Your task to perform on an android device: install app "Microsoft Excel" Image 0: 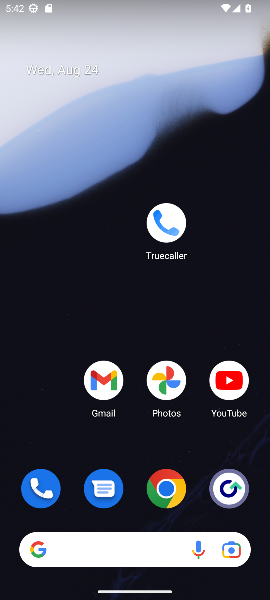
Step 0: drag from (130, 513) to (116, 121)
Your task to perform on an android device: install app "Microsoft Excel" Image 1: 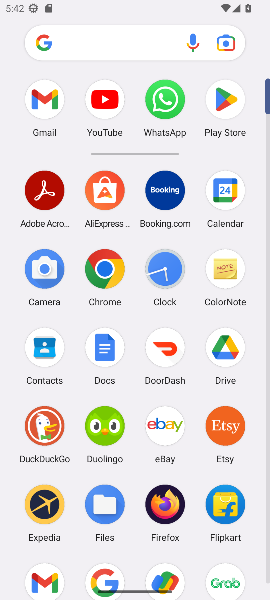
Step 1: click (234, 110)
Your task to perform on an android device: install app "Microsoft Excel" Image 2: 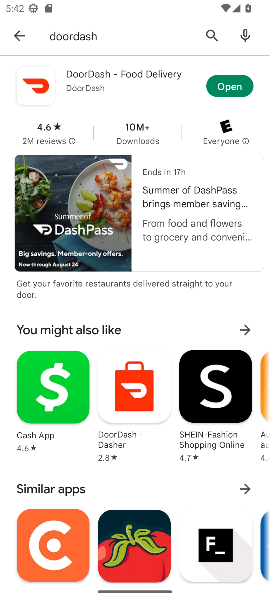
Step 2: click (205, 36)
Your task to perform on an android device: install app "Microsoft Excel" Image 3: 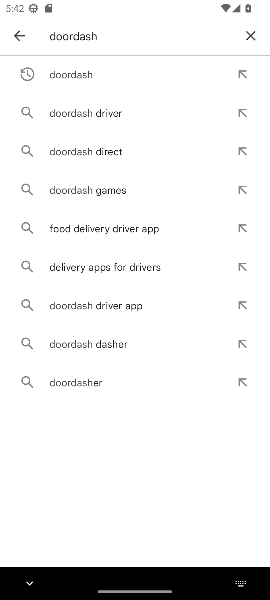
Step 3: click (241, 36)
Your task to perform on an android device: install app "Microsoft Excel" Image 4: 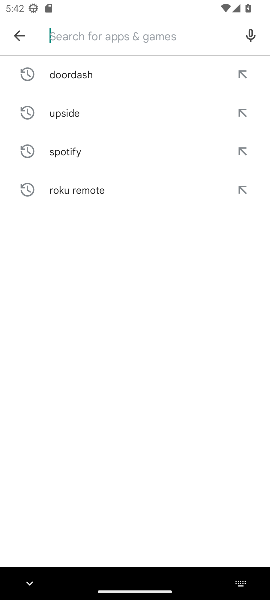
Step 4: type "microsoft excel"
Your task to perform on an android device: install app "Microsoft Excel" Image 5: 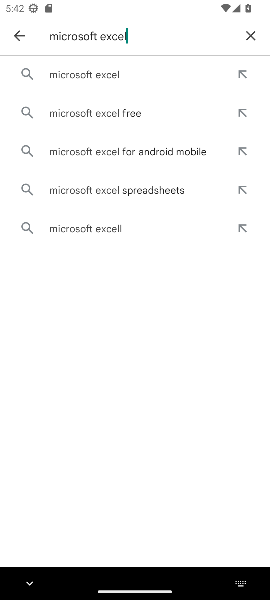
Step 5: click (89, 74)
Your task to perform on an android device: install app "Microsoft Excel" Image 6: 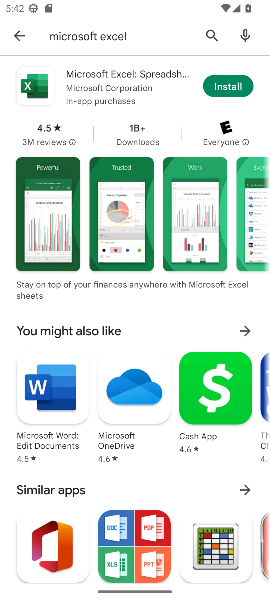
Step 6: click (242, 88)
Your task to perform on an android device: install app "Microsoft Excel" Image 7: 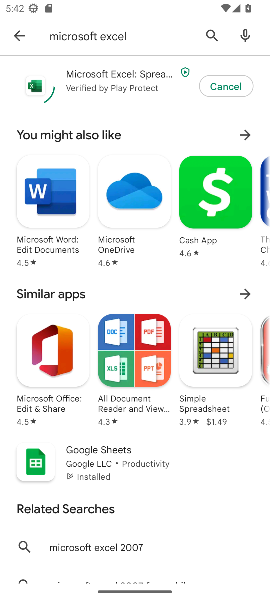
Step 7: task complete